Your task to perform on an android device: Open Chrome and go to the settings page Image 0: 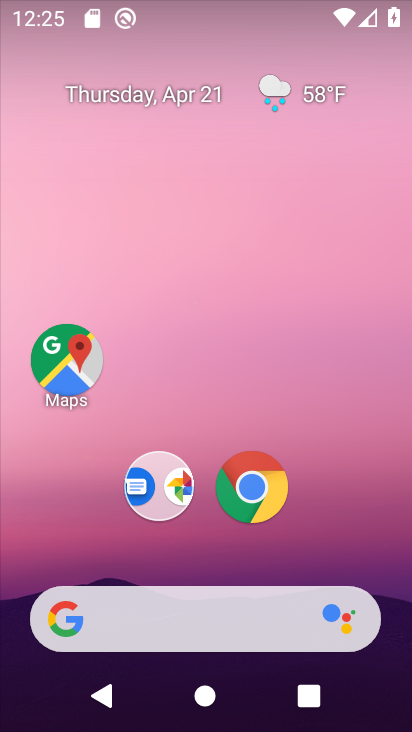
Step 0: drag from (256, 646) to (212, 136)
Your task to perform on an android device: Open Chrome and go to the settings page Image 1: 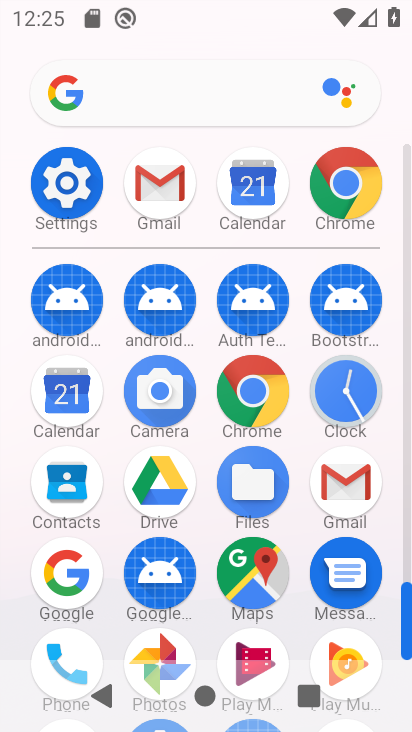
Step 1: click (247, 389)
Your task to perform on an android device: Open Chrome and go to the settings page Image 2: 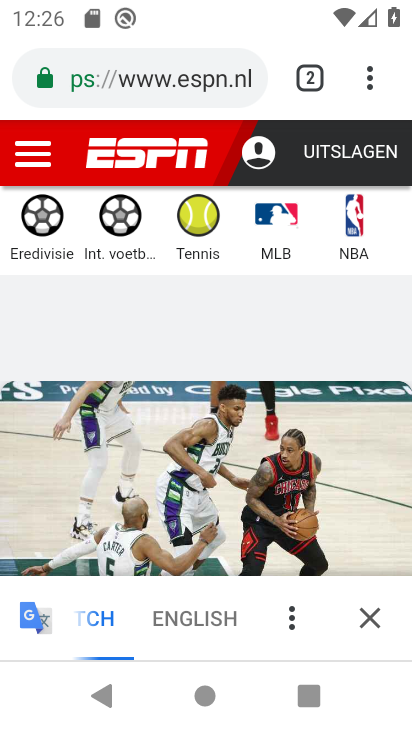
Step 2: click (366, 85)
Your task to perform on an android device: Open Chrome and go to the settings page Image 3: 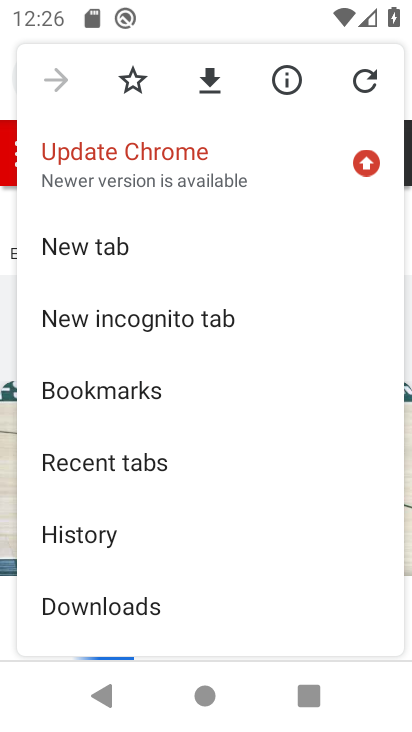
Step 3: drag from (99, 499) to (209, 246)
Your task to perform on an android device: Open Chrome and go to the settings page Image 4: 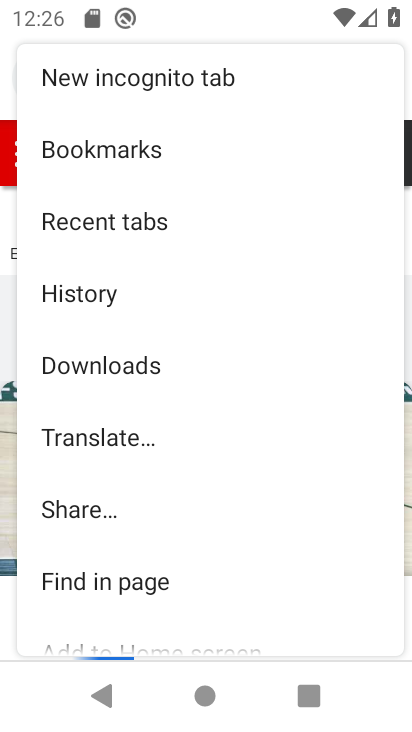
Step 4: drag from (211, 579) to (296, 313)
Your task to perform on an android device: Open Chrome and go to the settings page Image 5: 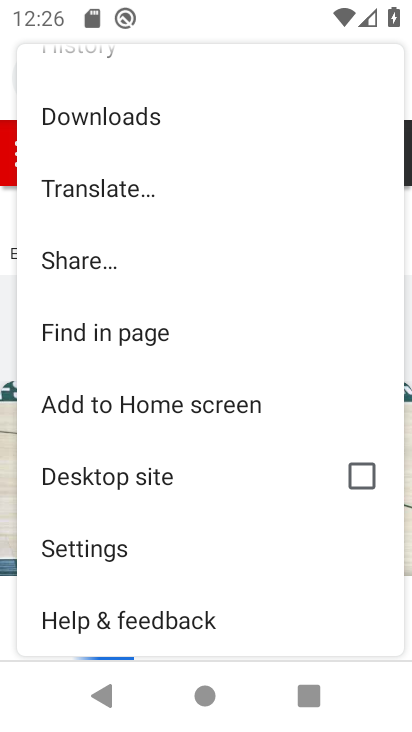
Step 5: click (124, 548)
Your task to perform on an android device: Open Chrome and go to the settings page Image 6: 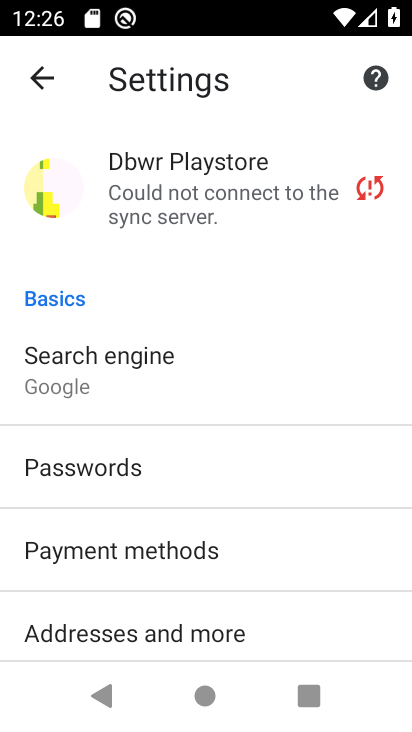
Step 6: task complete